Your task to perform on an android device: How much does a 3 bedroom apartment rent for in Boston? Image 0: 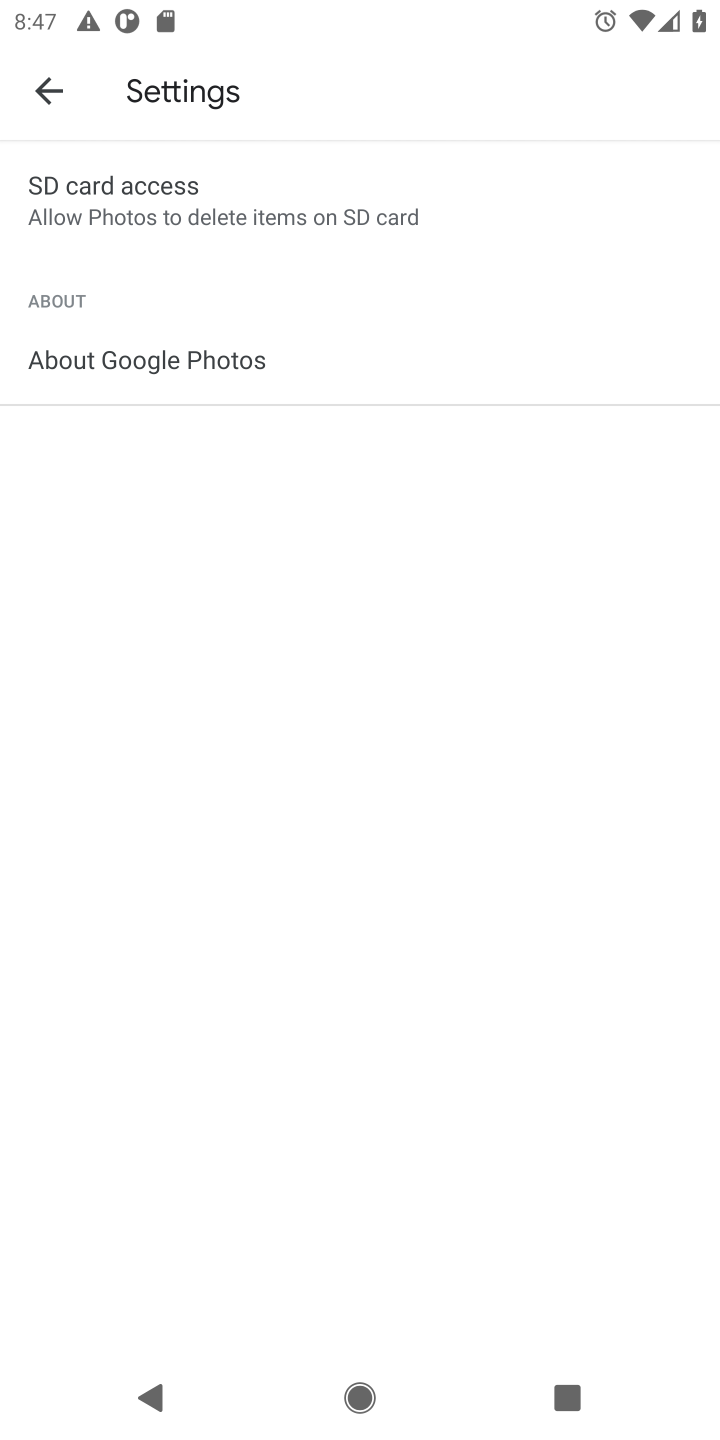
Step 0: press home button
Your task to perform on an android device: How much does a 3 bedroom apartment rent for in Boston? Image 1: 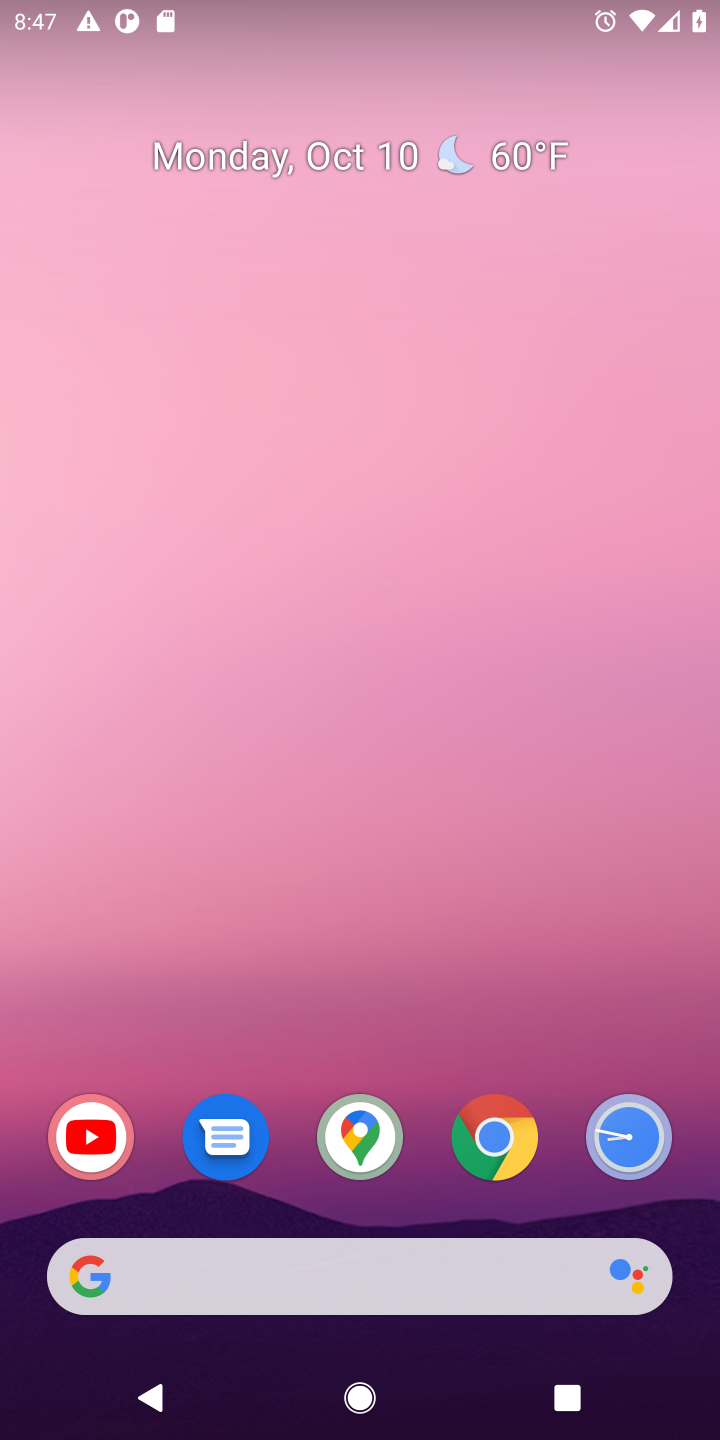
Step 1: click (490, 1138)
Your task to perform on an android device: How much does a 3 bedroom apartment rent for in Boston? Image 2: 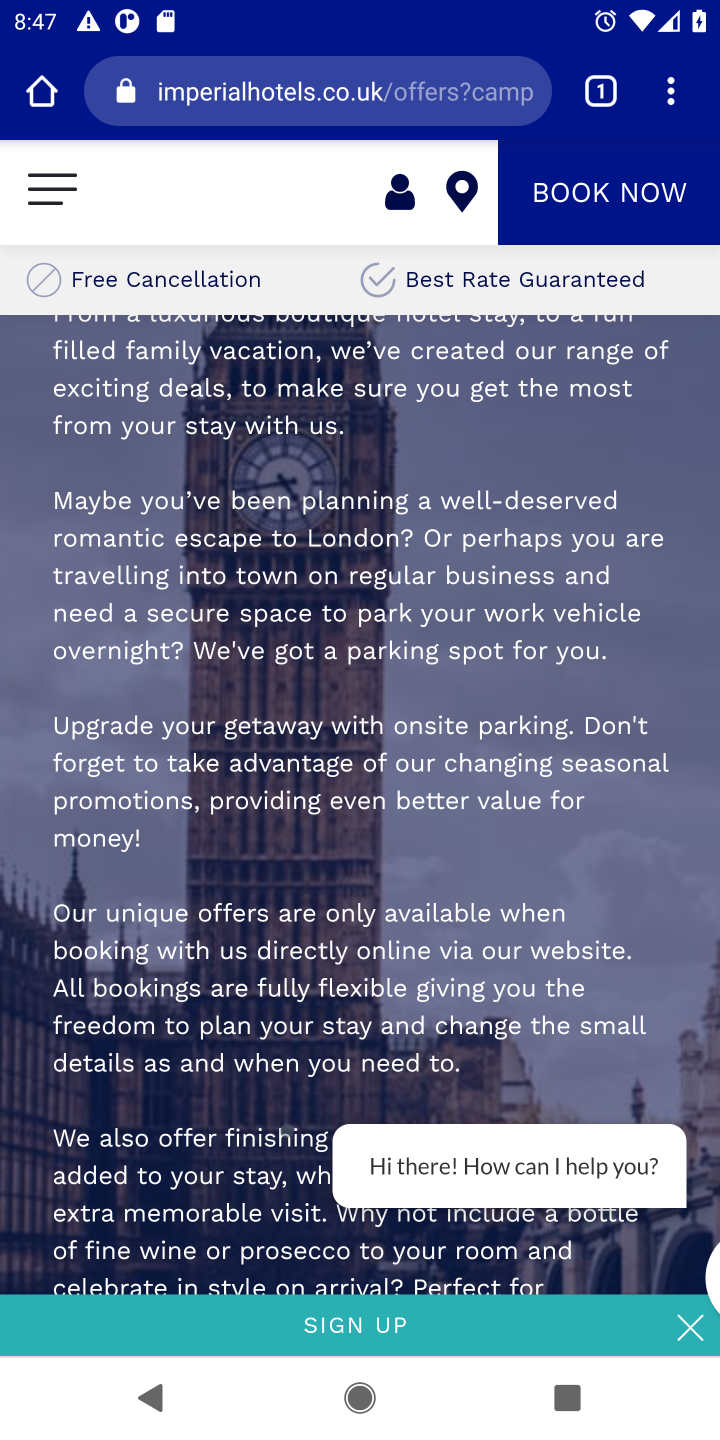
Step 2: click (35, 86)
Your task to perform on an android device: How much does a 3 bedroom apartment rent for in Boston? Image 3: 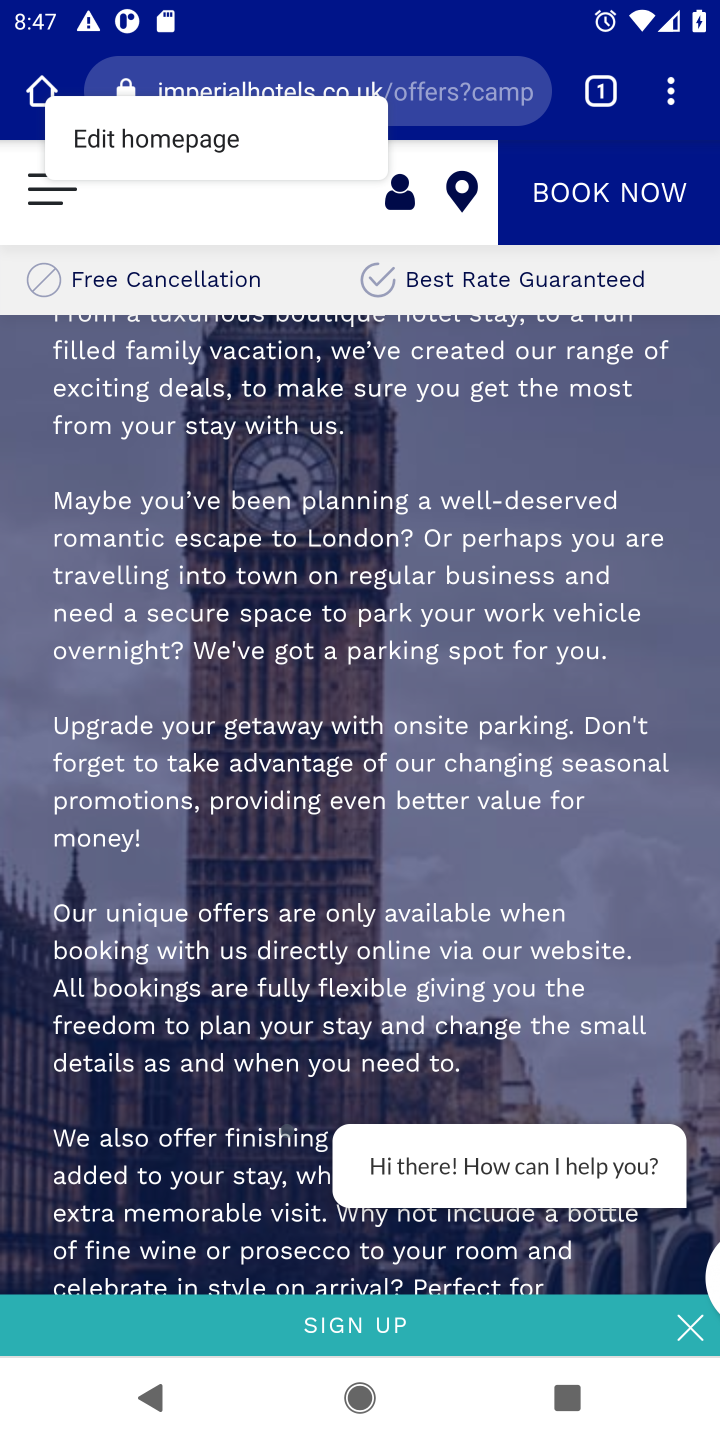
Step 3: click (227, 67)
Your task to perform on an android device: How much does a 3 bedroom apartment rent for in Boston? Image 4: 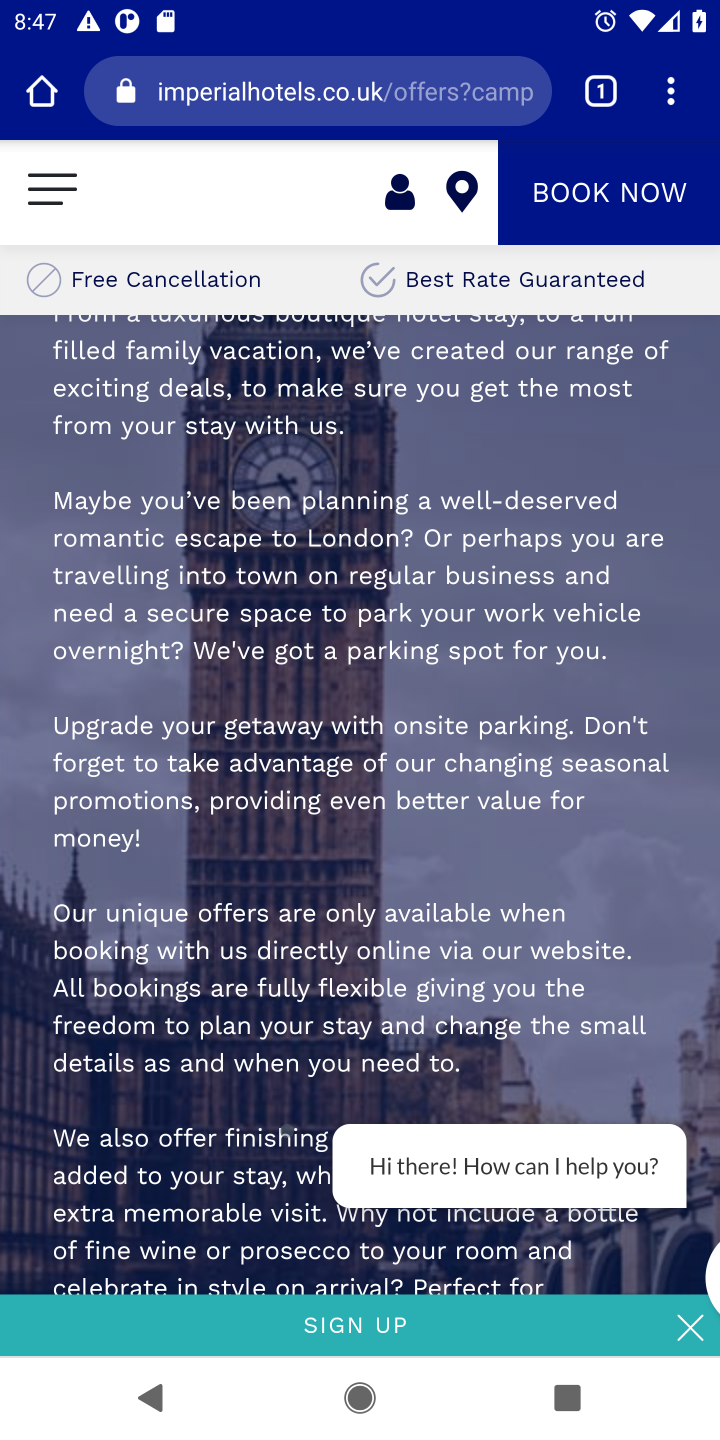
Step 4: click (255, 71)
Your task to perform on an android device: How much does a 3 bedroom apartment rent for in Boston? Image 5: 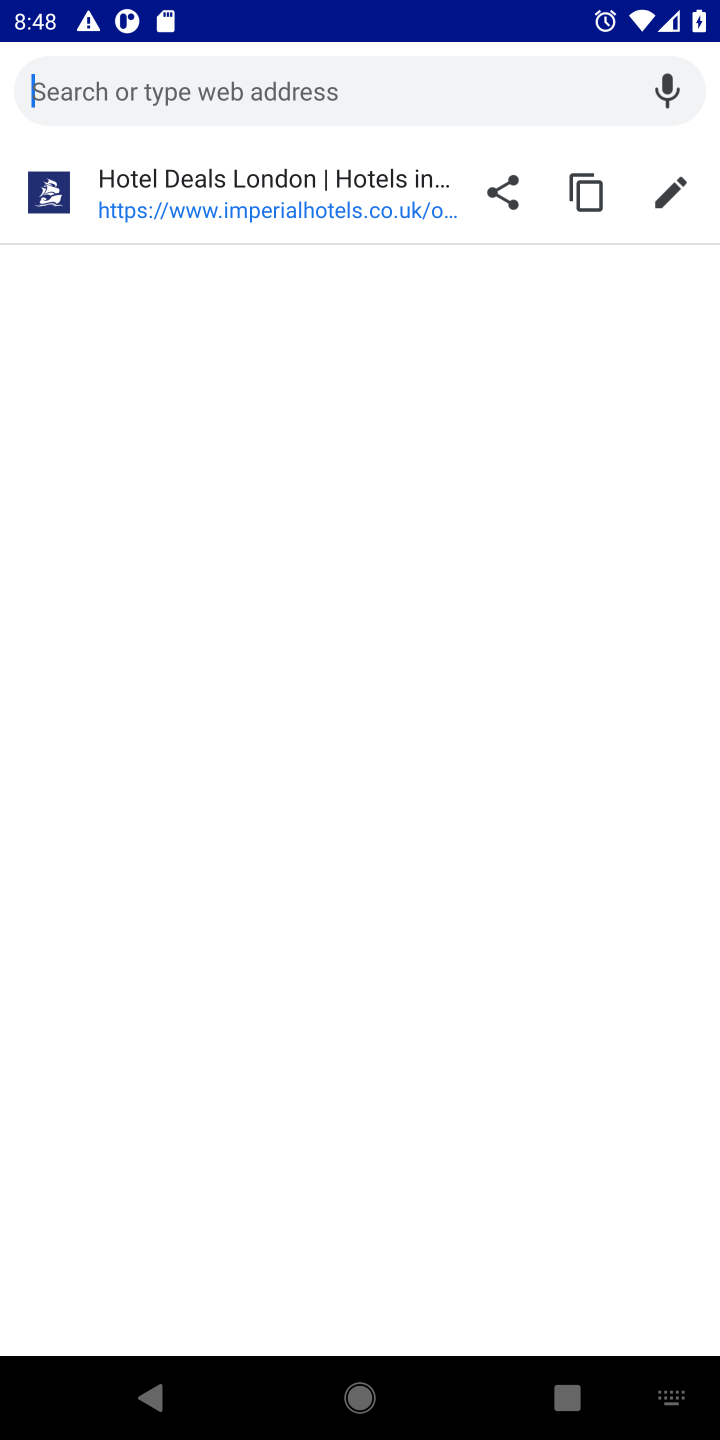
Step 5: type "How much does a 3 bedroom apartment rent for in Boston?"
Your task to perform on an android device: How much does a 3 bedroom apartment rent for in Boston? Image 6: 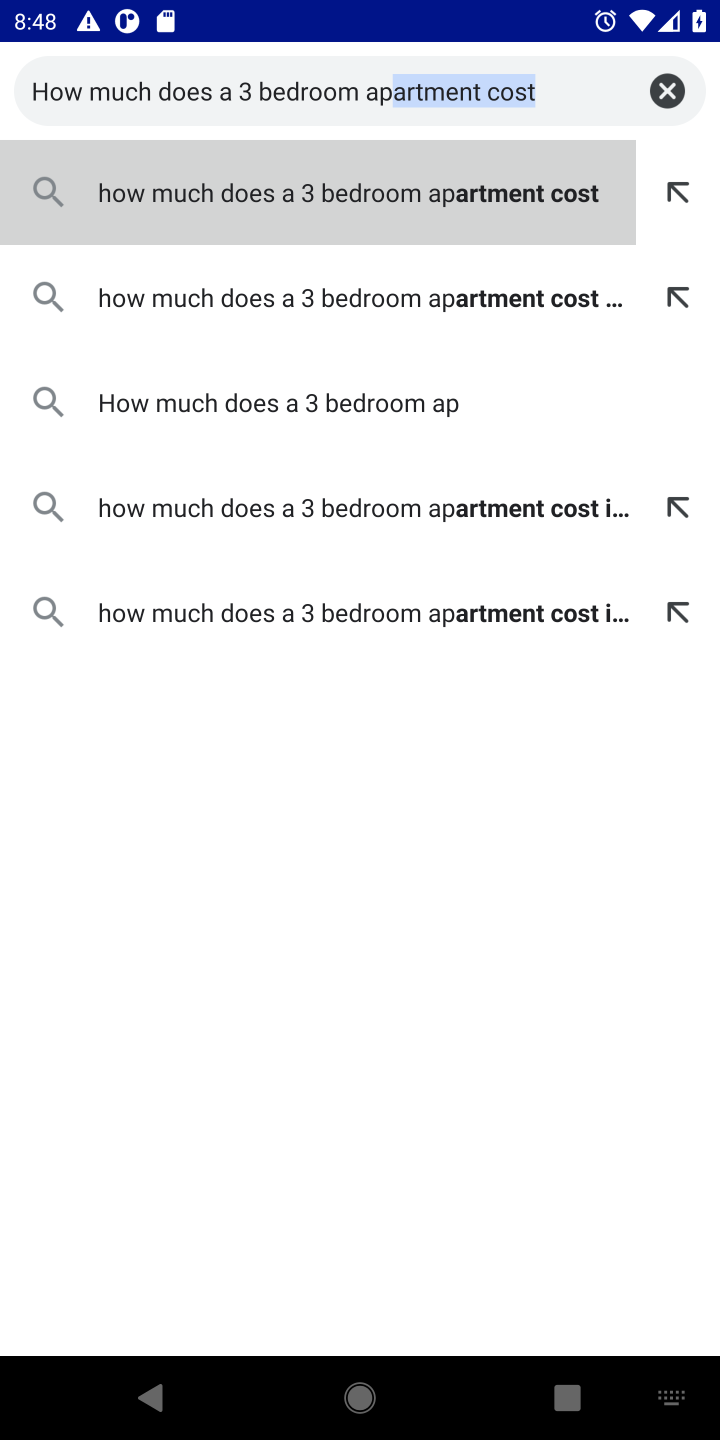
Step 6: click (309, 186)
Your task to perform on an android device: How much does a 3 bedroom apartment rent for in Boston? Image 7: 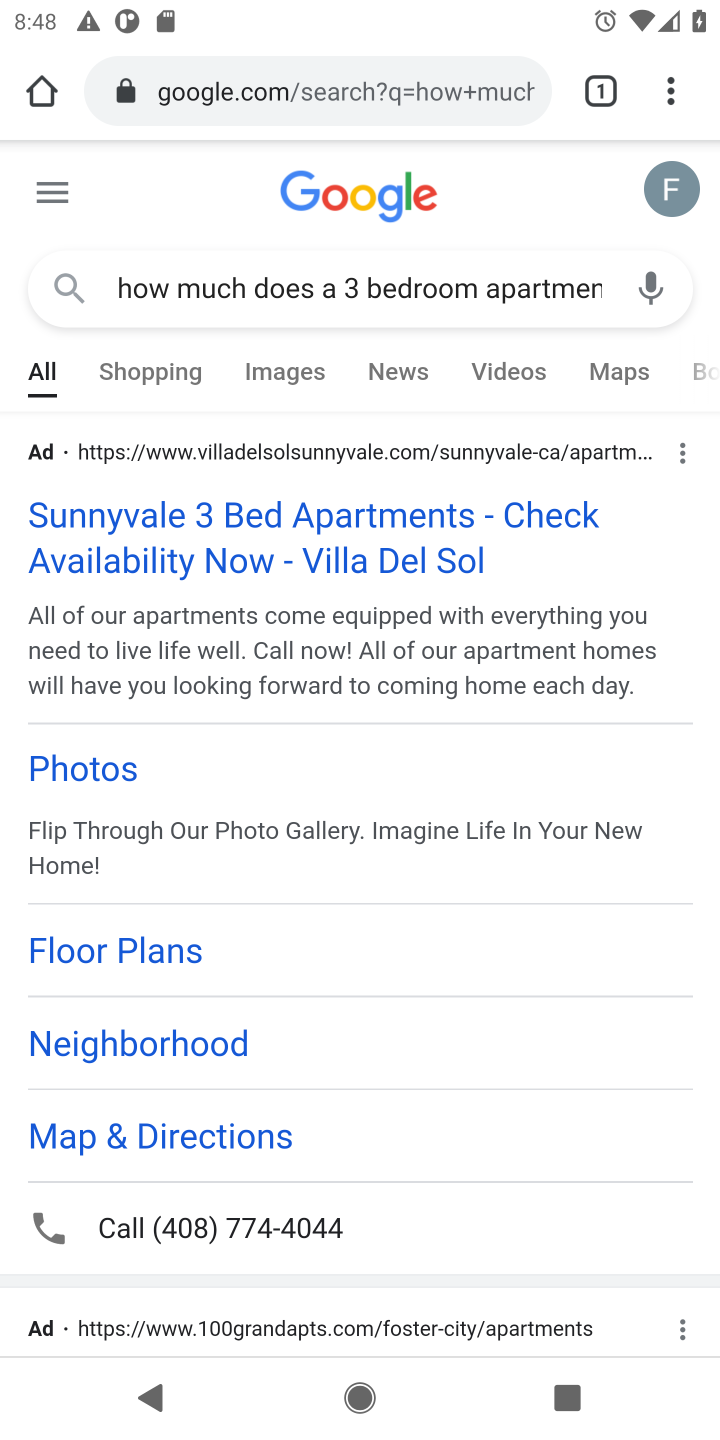
Step 7: drag from (337, 1211) to (286, 441)
Your task to perform on an android device: How much does a 3 bedroom apartment rent for in Boston? Image 8: 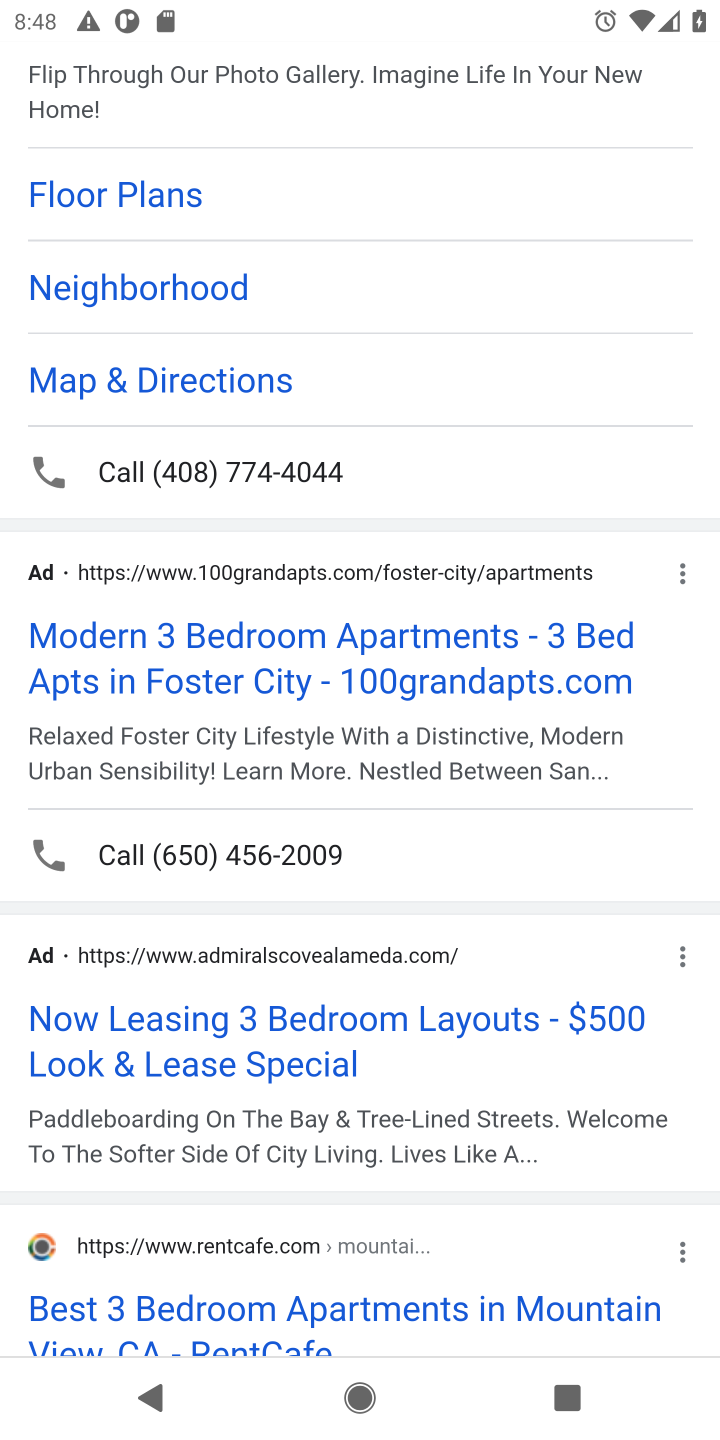
Step 8: drag from (352, 1131) to (373, 469)
Your task to perform on an android device: How much does a 3 bedroom apartment rent for in Boston? Image 9: 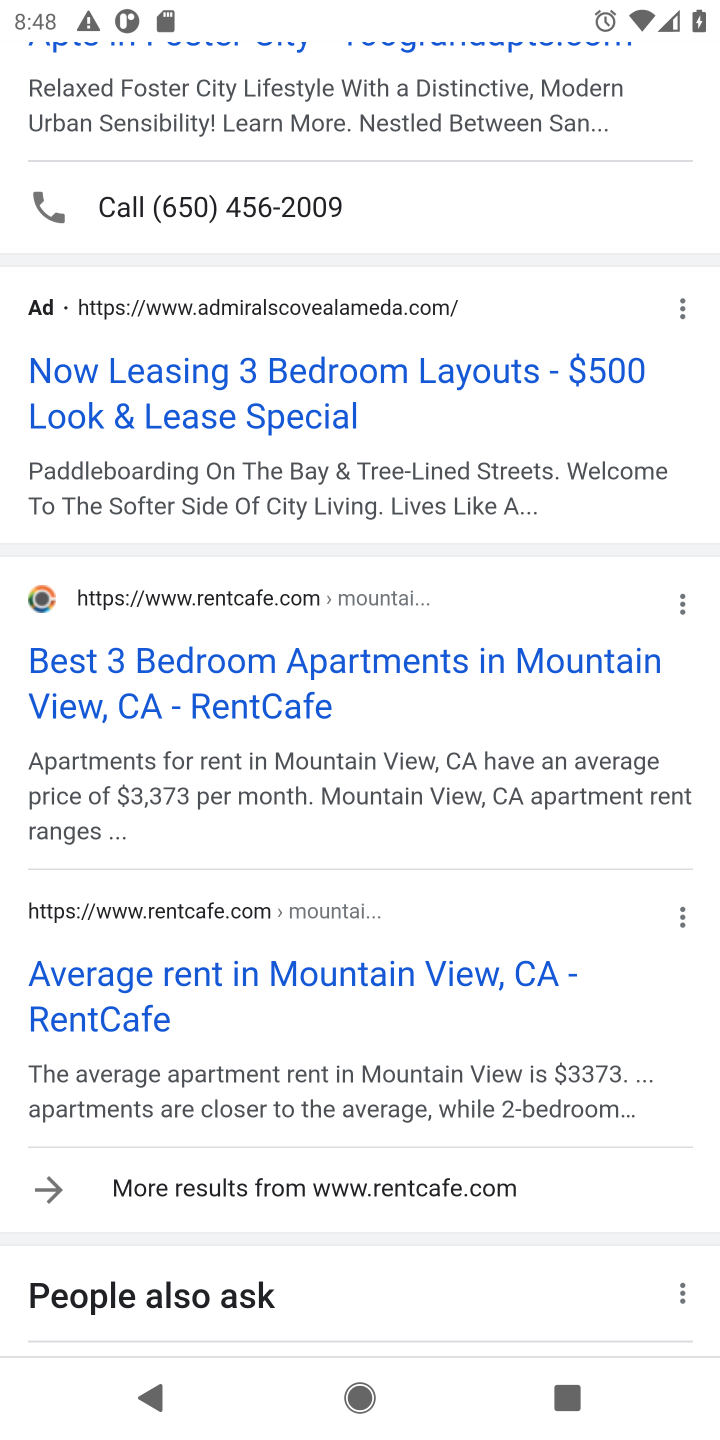
Step 9: drag from (254, 1298) to (277, 256)
Your task to perform on an android device: How much does a 3 bedroom apartment rent for in Boston? Image 10: 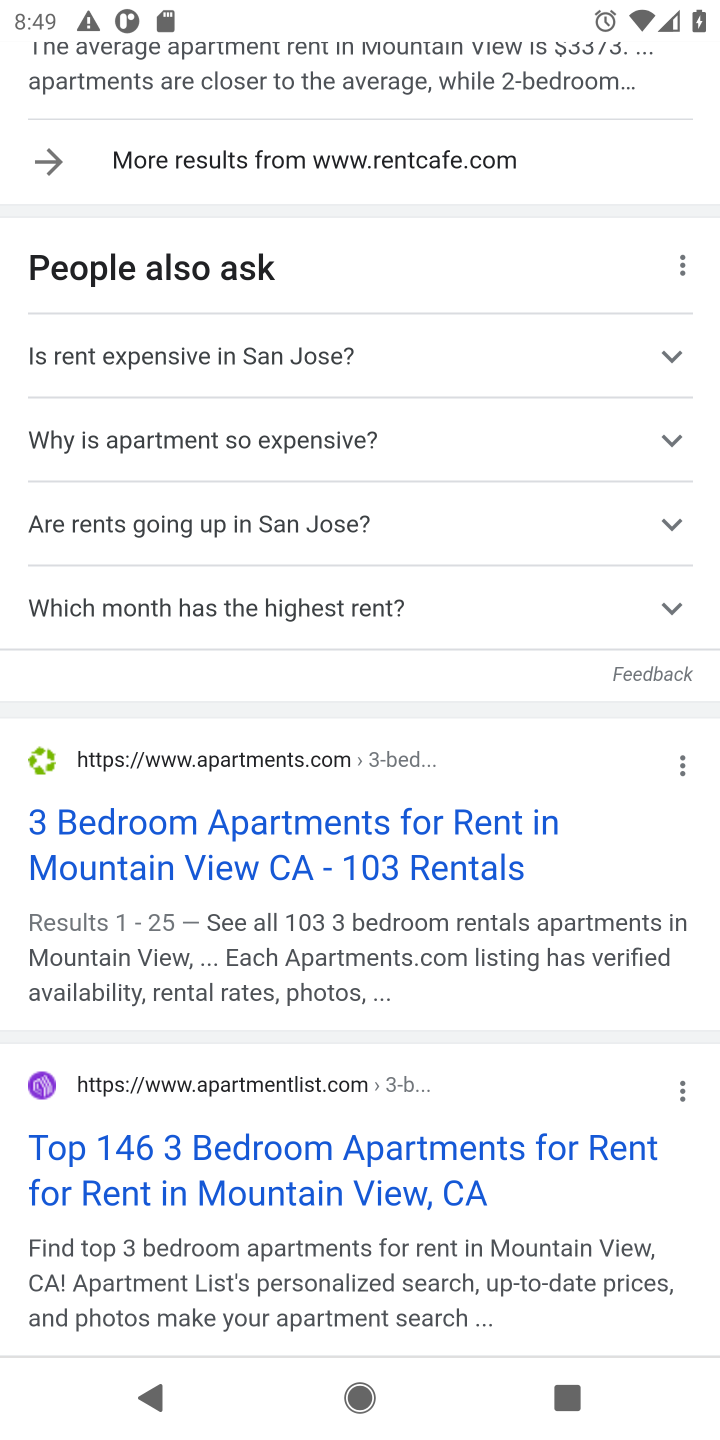
Step 10: drag from (277, 256) to (313, 1040)
Your task to perform on an android device: How much does a 3 bedroom apartment rent for in Boston? Image 11: 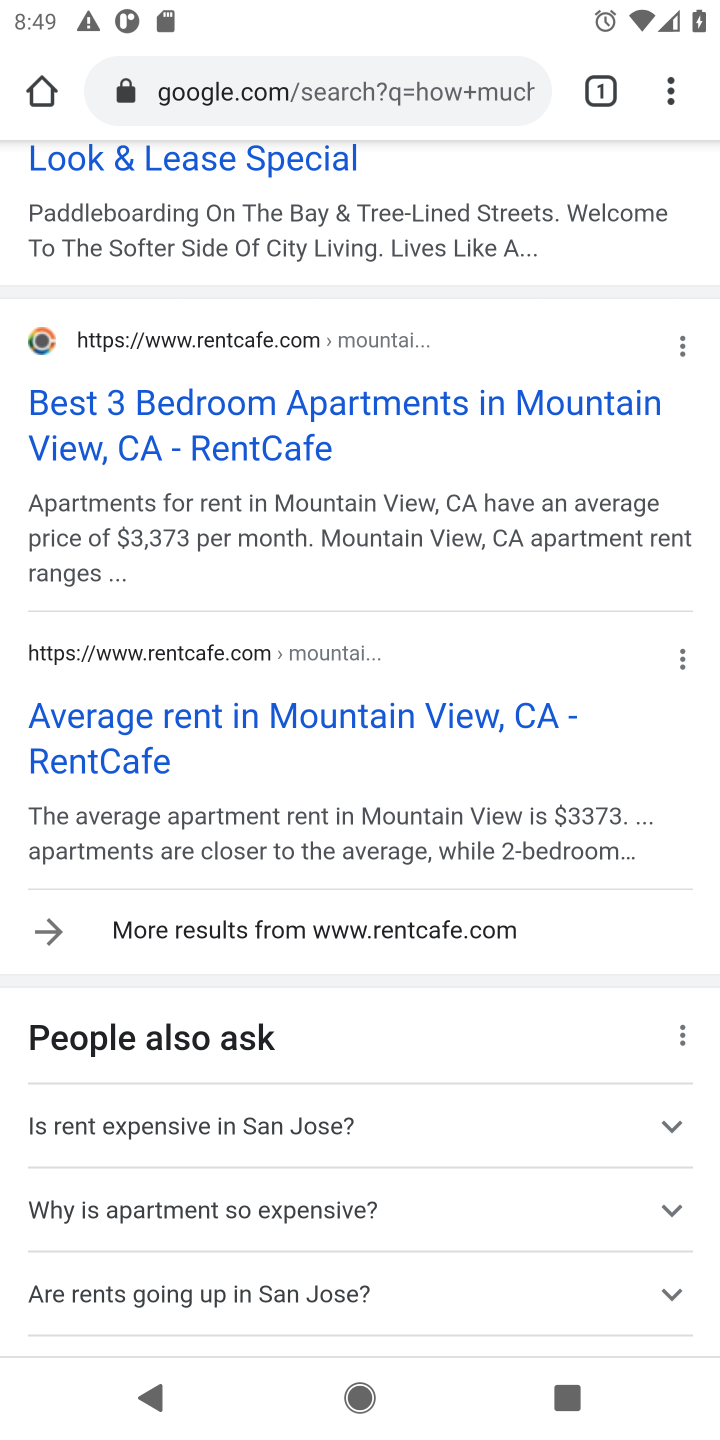
Step 11: drag from (344, 325) to (357, 1162)
Your task to perform on an android device: How much does a 3 bedroom apartment rent for in Boston? Image 12: 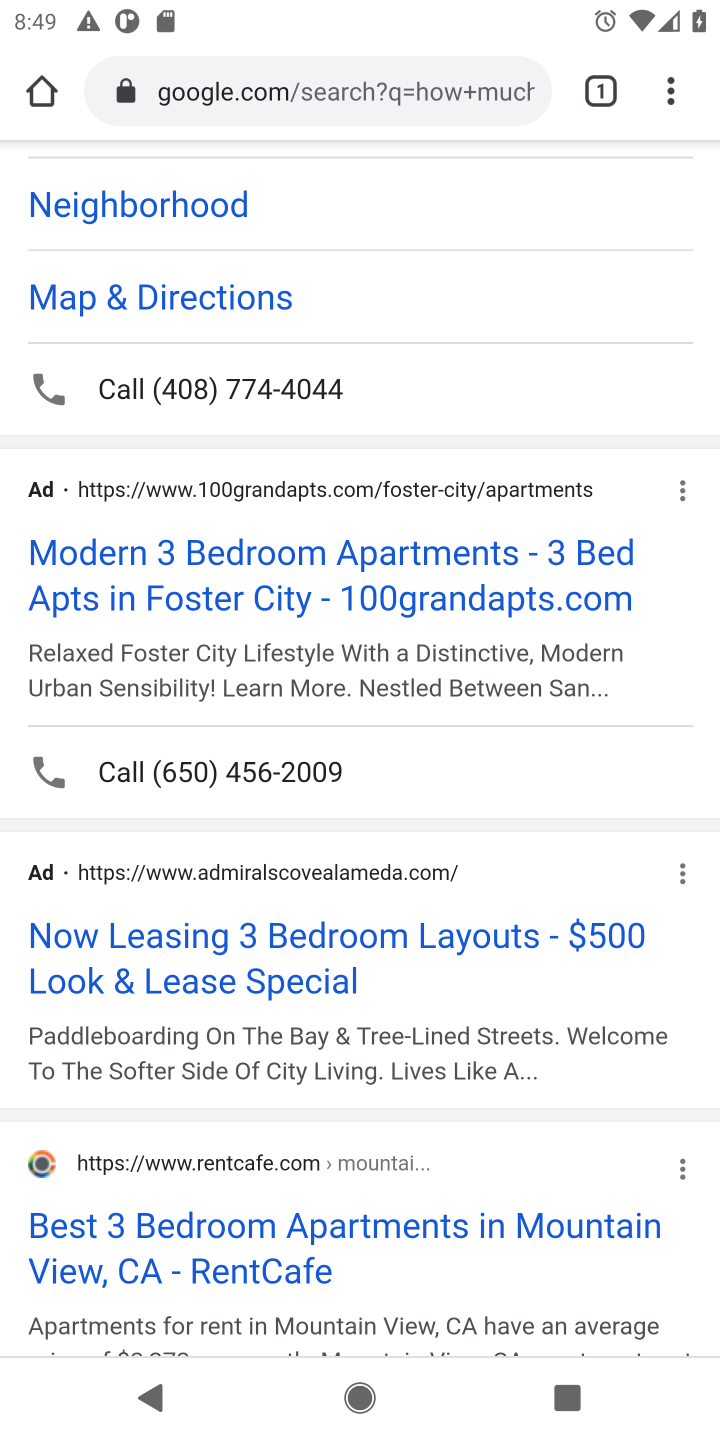
Step 12: drag from (349, 315) to (363, 1012)
Your task to perform on an android device: How much does a 3 bedroom apartment rent for in Boston? Image 13: 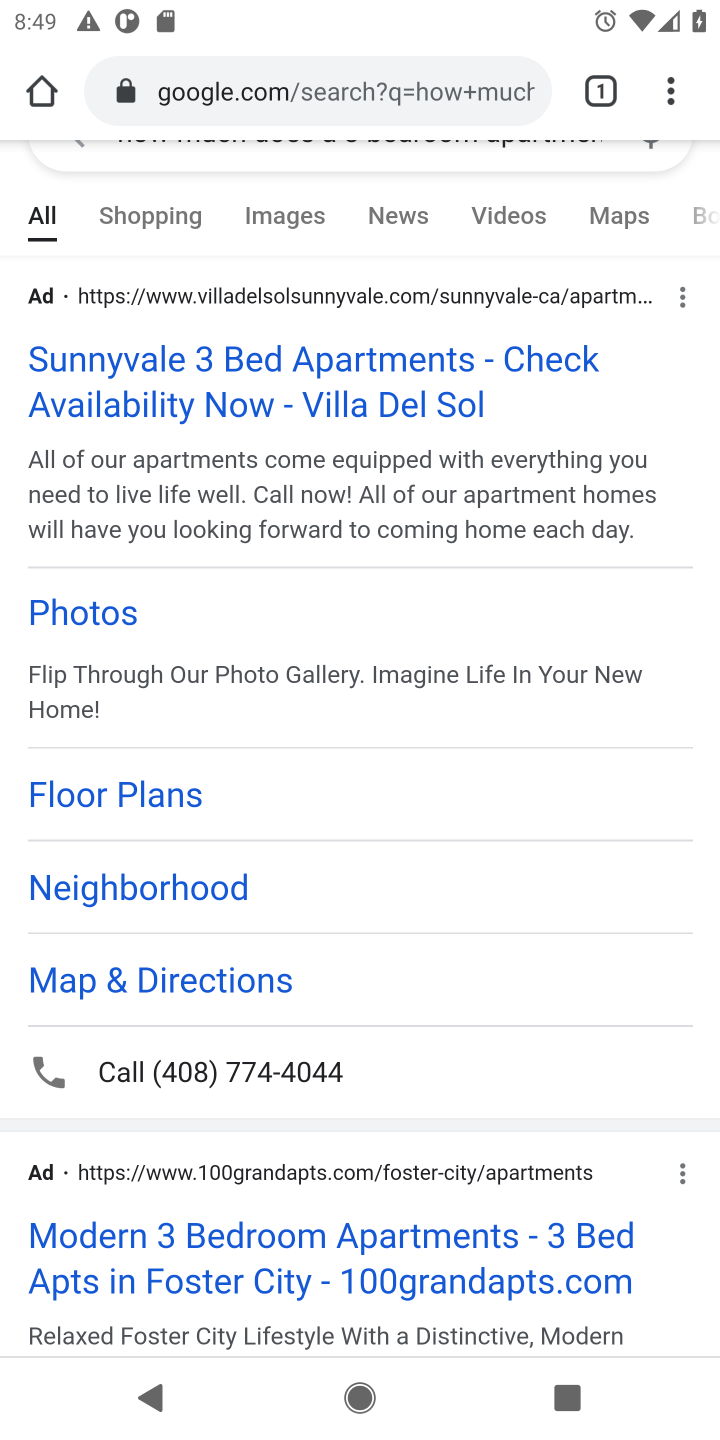
Step 13: drag from (365, 388) to (323, 999)
Your task to perform on an android device: How much does a 3 bedroom apartment rent for in Boston? Image 14: 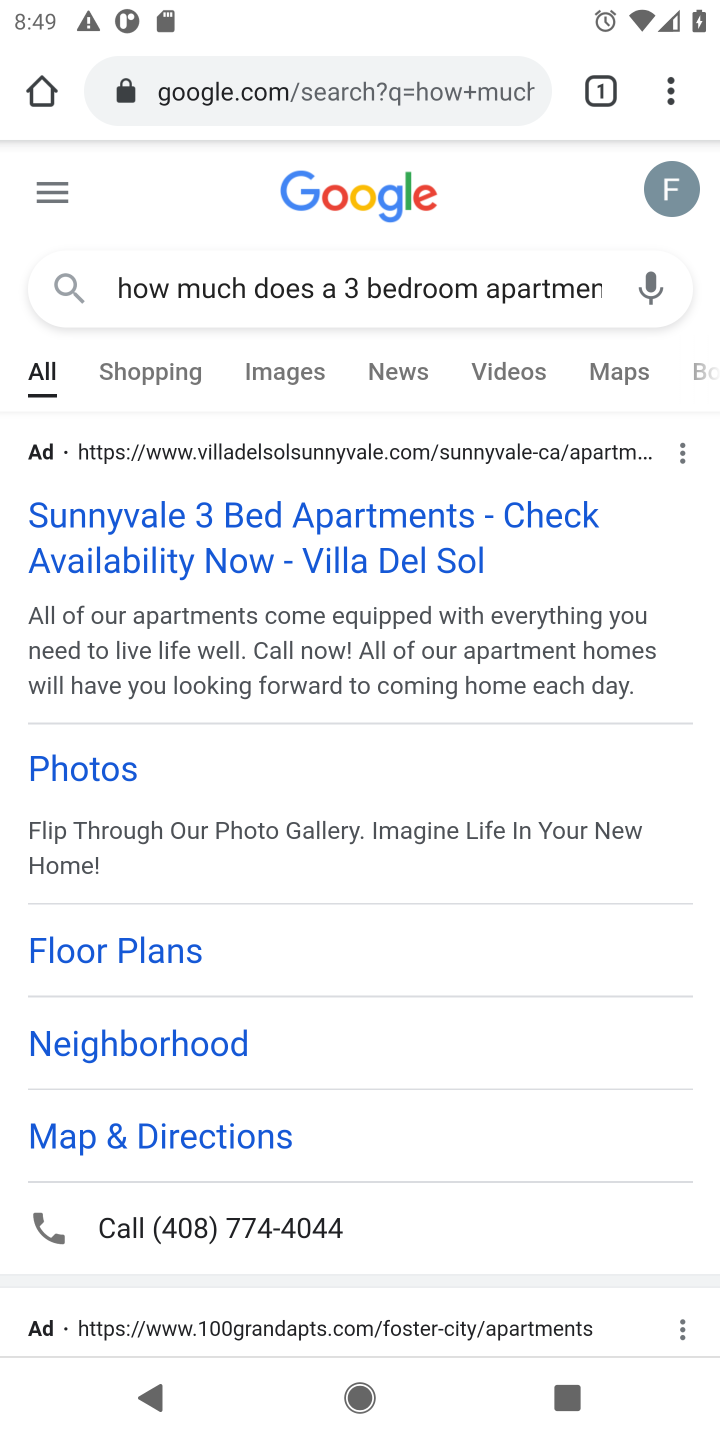
Step 14: click (430, 275)
Your task to perform on an android device: How much does a 3 bedroom apartment rent for in Boston? Image 15: 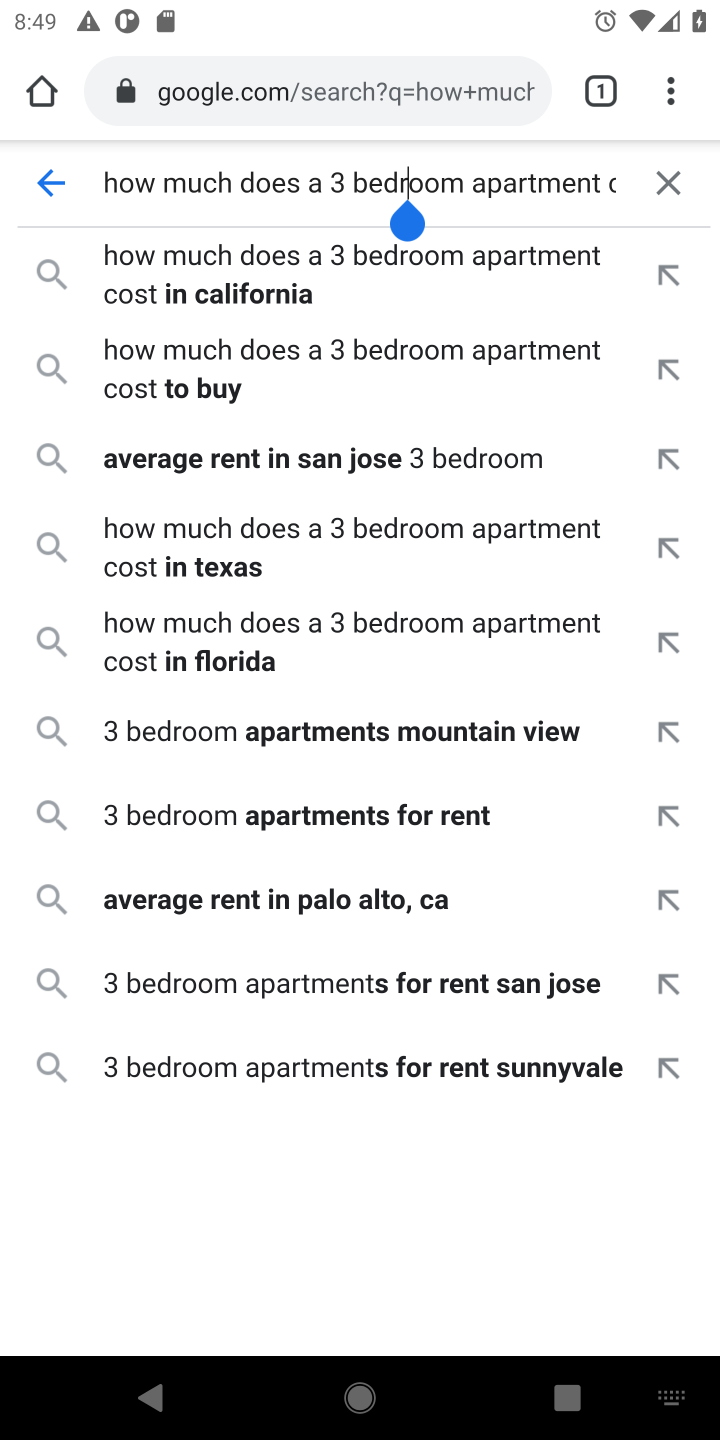
Step 15: click (679, 187)
Your task to perform on an android device: How much does a 3 bedroom apartment rent for in Boston? Image 16: 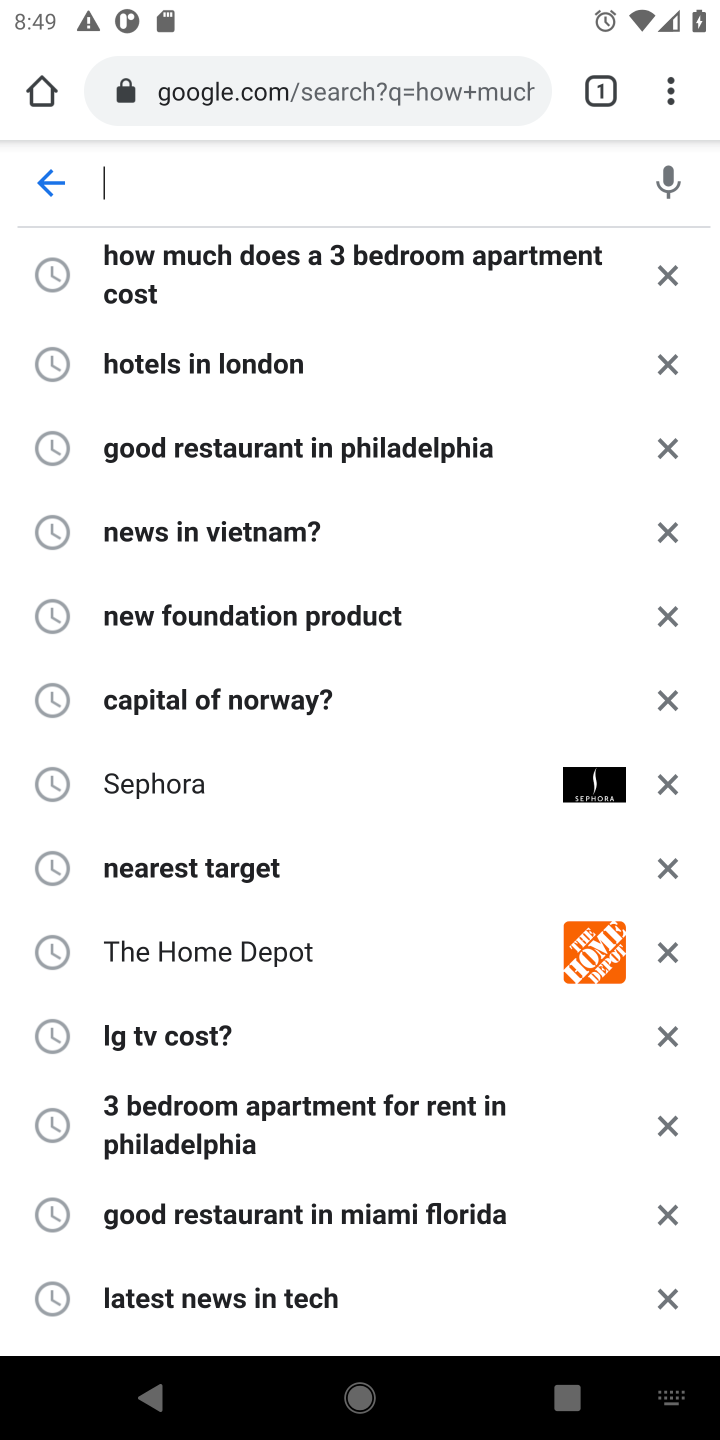
Step 16: type "3 bedroom apartment rent for in boston/"
Your task to perform on an android device: How much does a 3 bedroom apartment rent for in Boston? Image 17: 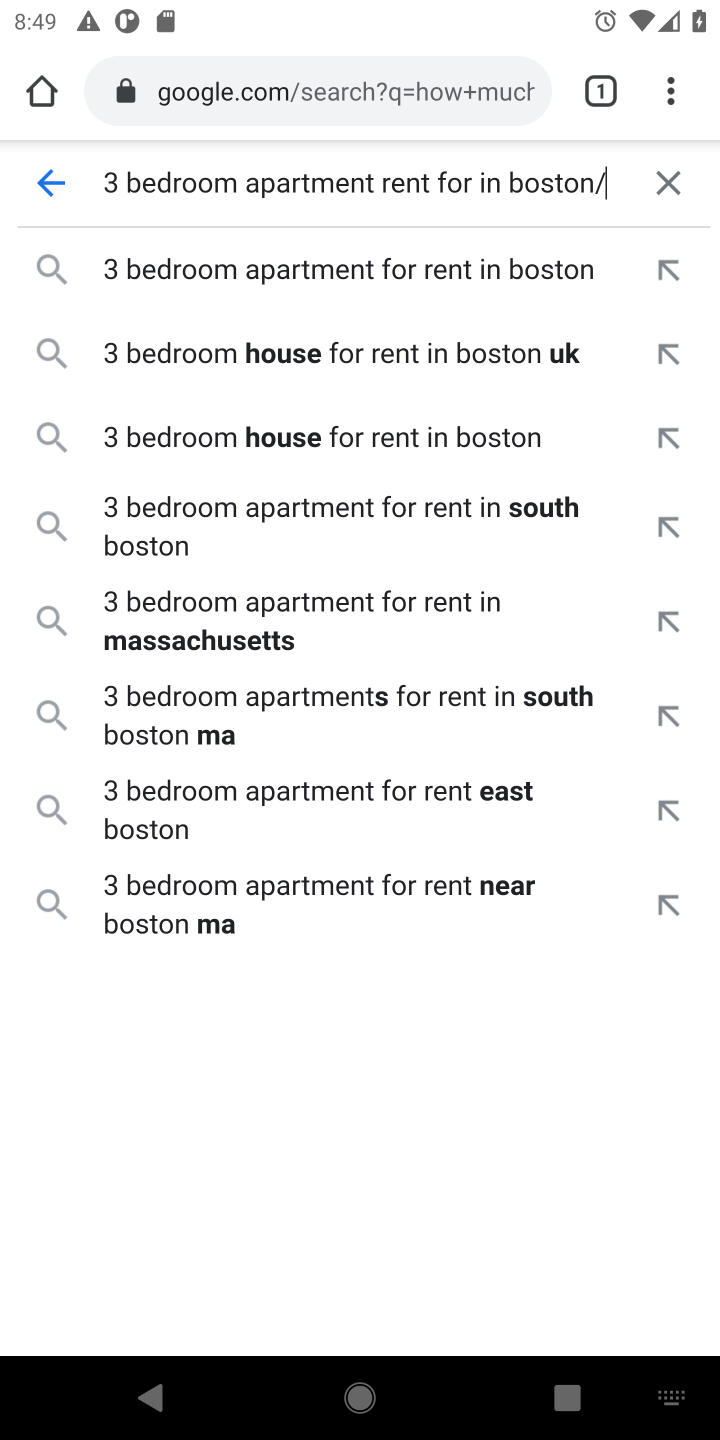
Step 17: click (287, 271)
Your task to perform on an android device: How much does a 3 bedroom apartment rent for in Boston? Image 18: 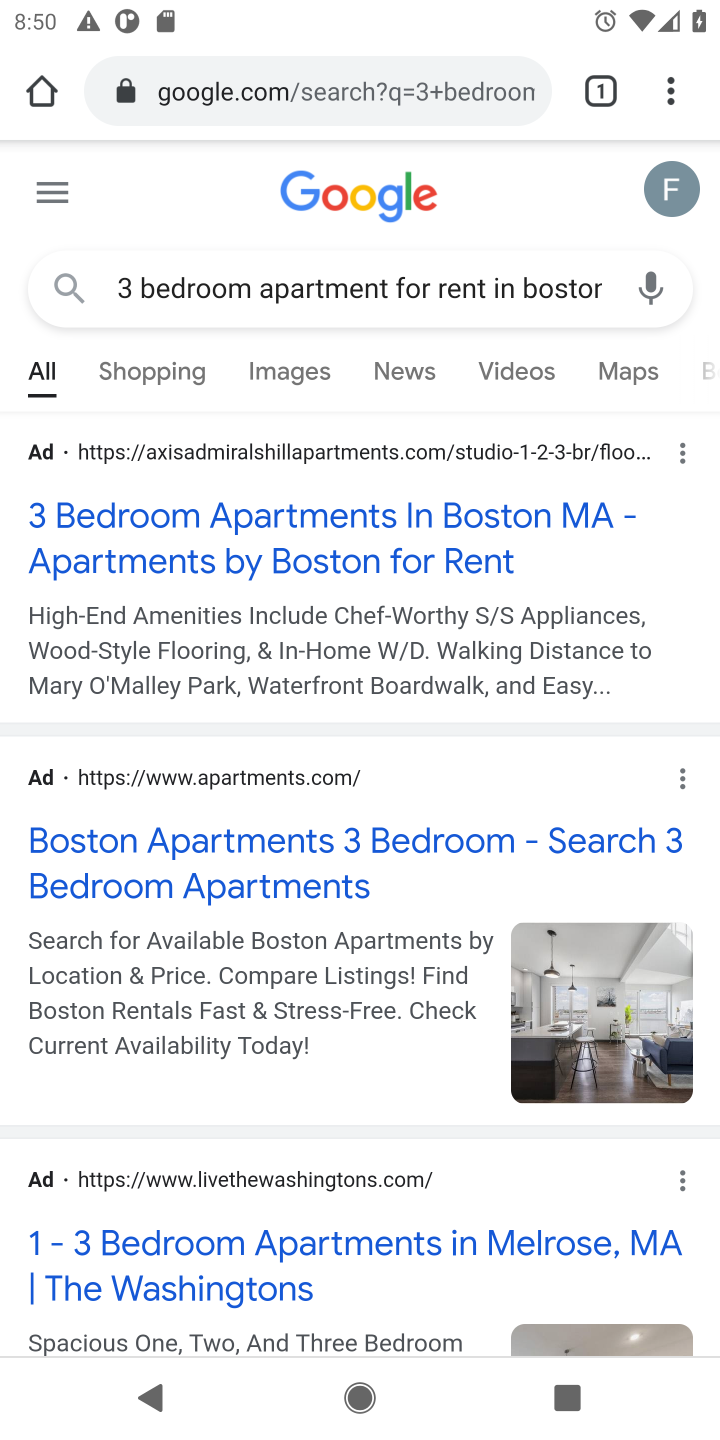
Step 18: click (225, 514)
Your task to perform on an android device: How much does a 3 bedroom apartment rent for in Boston? Image 19: 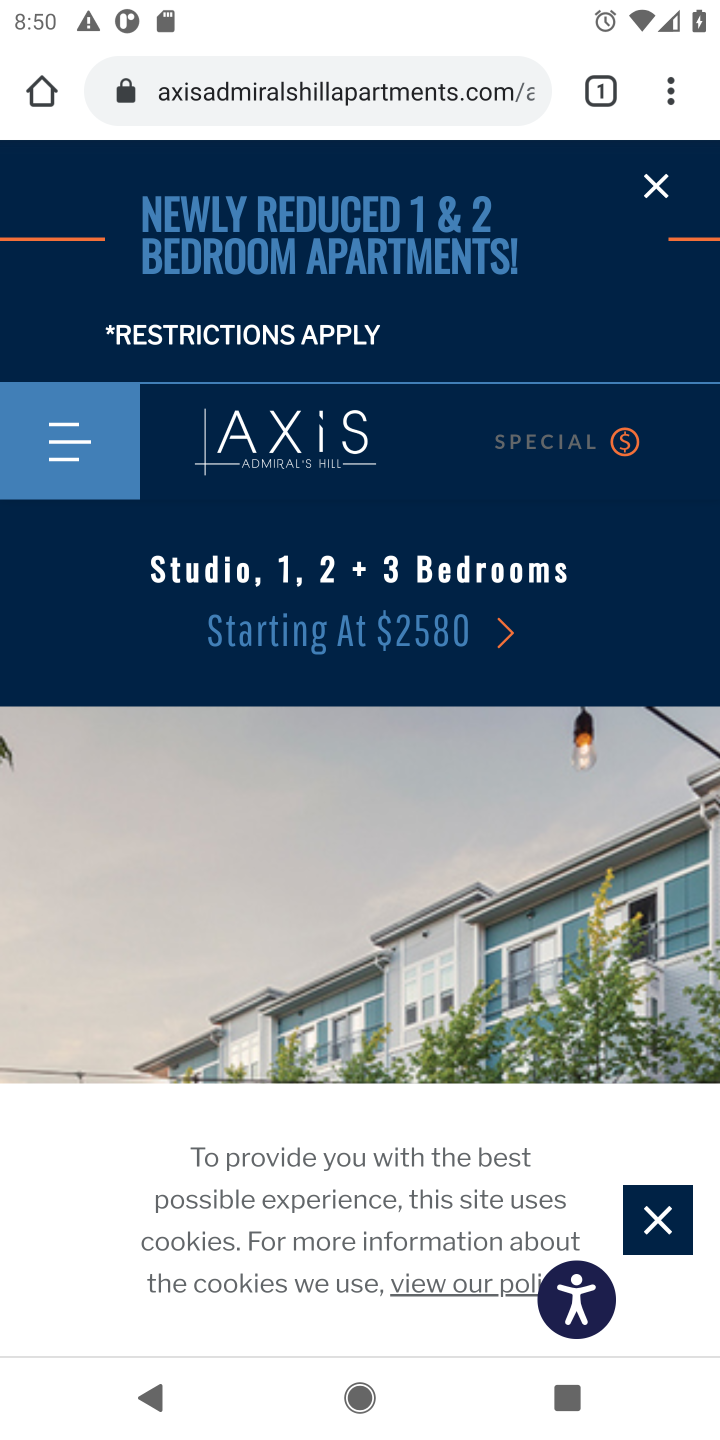
Step 19: click (662, 1220)
Your task to perform on an android device: How much does a 3 bedroom apartment rent for in Boston? Image 20: 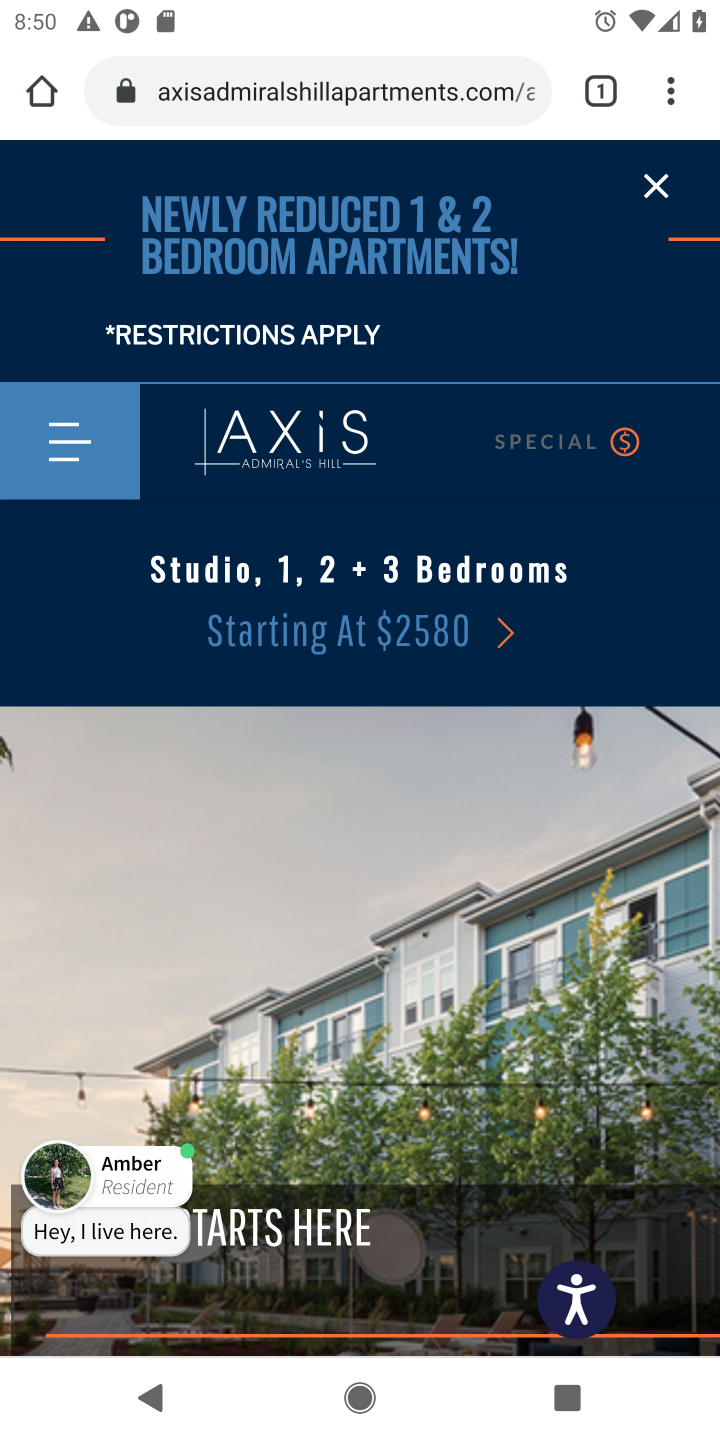
Step 20: task complete